Your task to perform on an android device: When is my next meeting? Image 0: 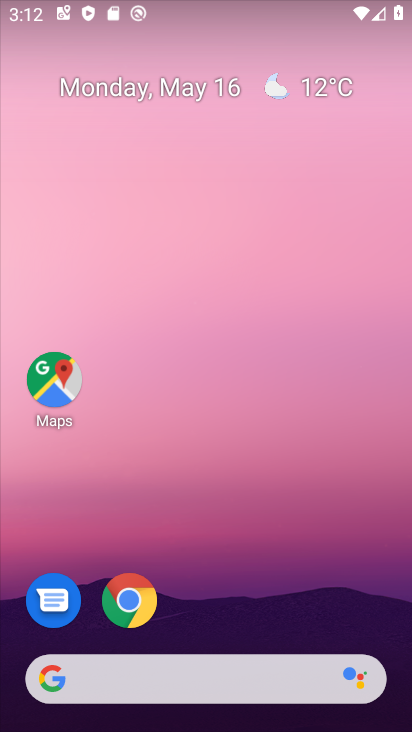
Step 0: drag from (220, 645) to (256, 24)
Your task to perform on an android device: When is my next meeting? Image 1: 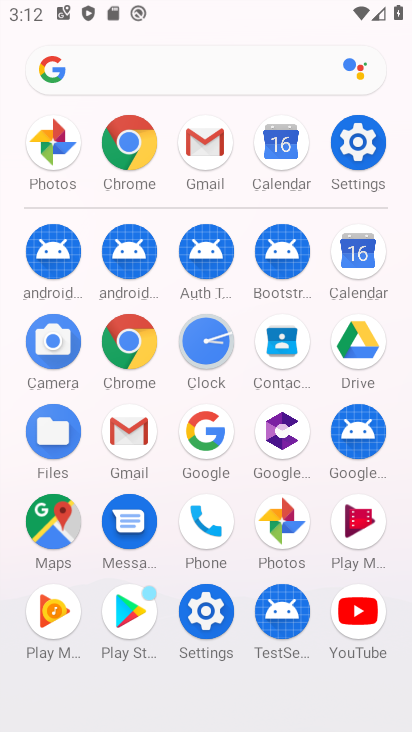
Step 1: click (342, 248)
Your task to perform on an android device: When is my next meeting? Image 2: 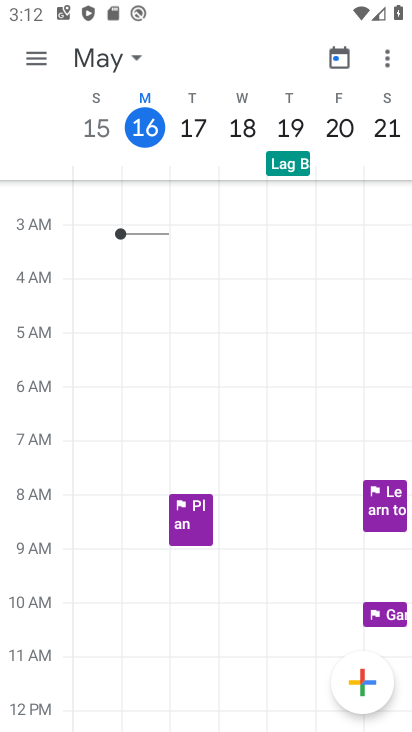
Step 2: task complete